Your task to perform on an android device: Open Google Chrome and click the shortcut for Amazon.com Image 0: 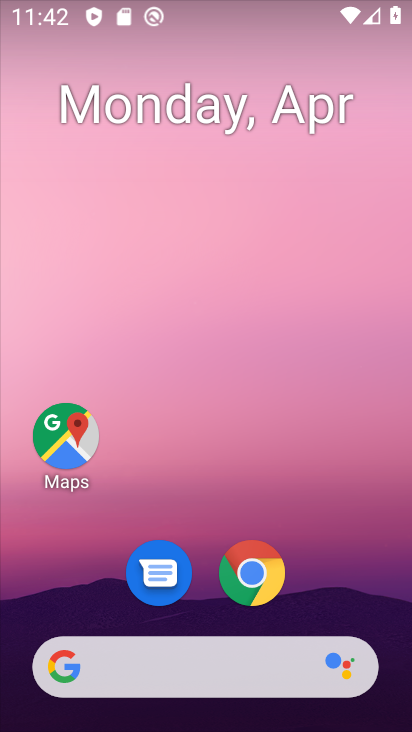
Step 0: click (234, 584)
Your task to perform on an android device: Open Google Chrome and click the shortcut for Amazon.com Image 1: 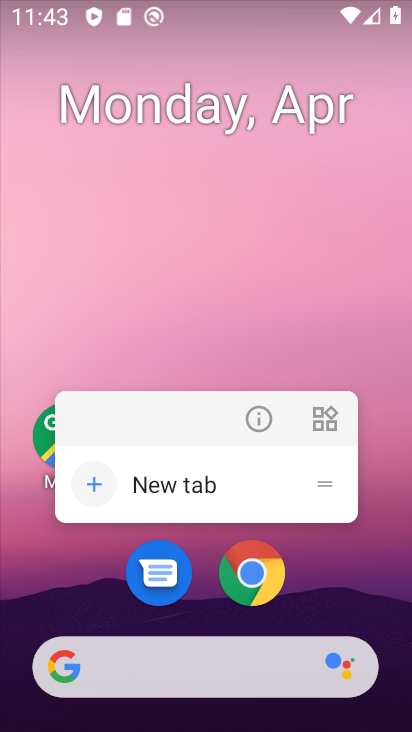
Step 1: click (252, 569)
Your task to perform on an android device: Open Google Chrome and click the shortcut for Amazon.com Image 2: 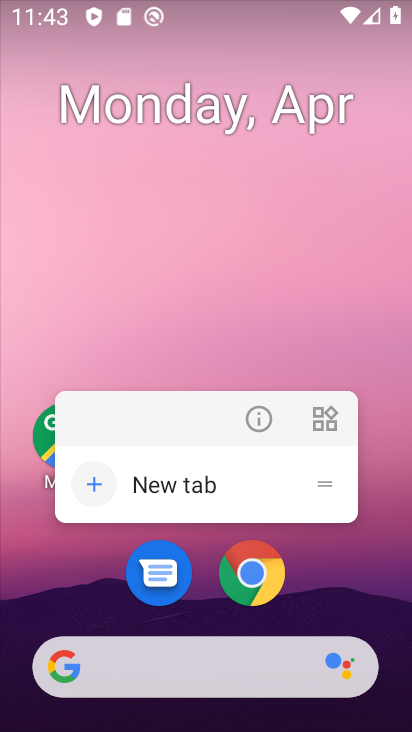
Step 2: click (252, 569)
Your task to perform on an android device: Open Google Chrome and click the shortcut for Amazon.com Image 3: 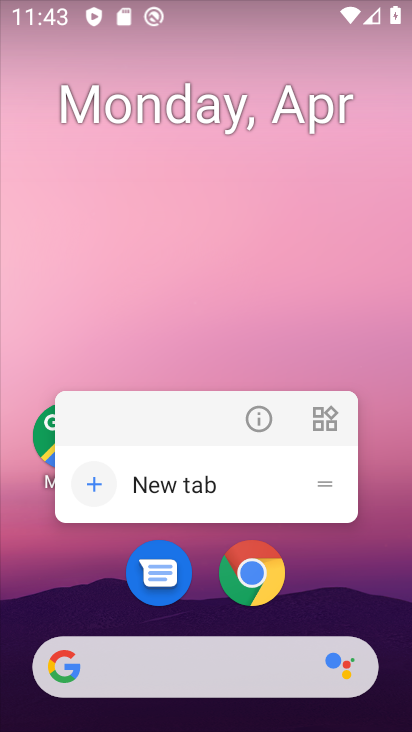
Step 3: click (252, 569)
Your task to perform on an android device: Open Google Chrome and click the shortcut for Amazon.com Image 4: 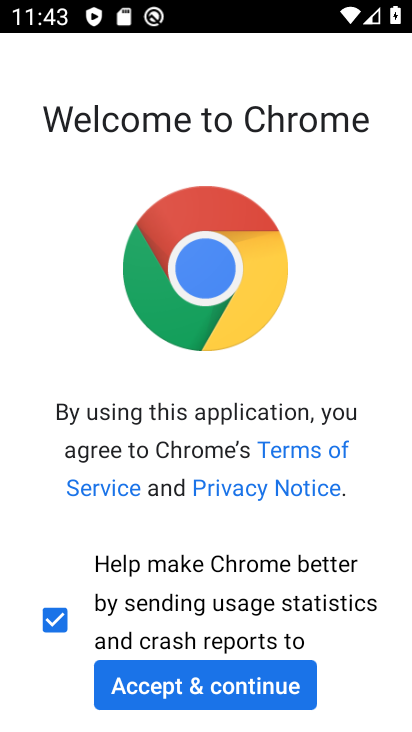
Step 4: click (165, 686)
Your task to perform on an android device: Open Google Chrome and click the shortcut for Amazon.com Image 5: 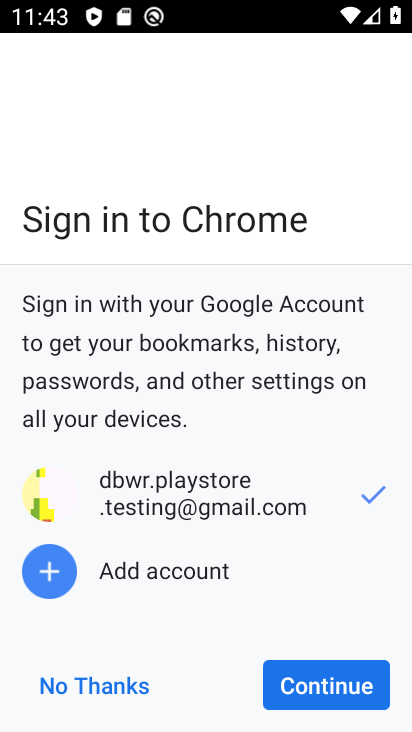
Step 5: click (319, 669)
Your task to perform on an android device: Open Google Chrome and click the shortcut for Amazon.com Image 6: 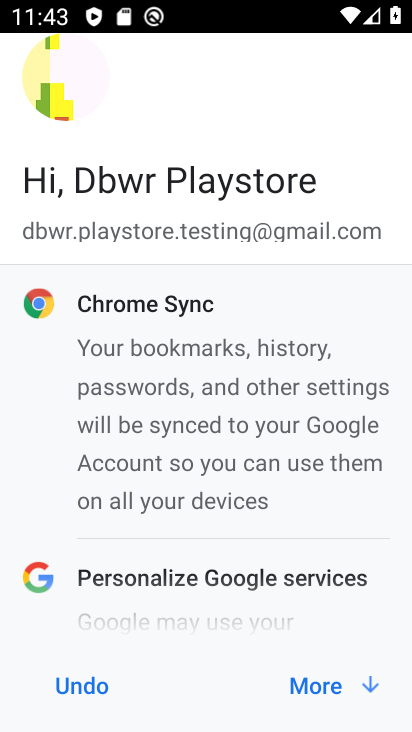
Step 6: click (344, 685)
Your task to perform on an android device: Open Google Chrome and click the shortcut for Amazon.com Image 7: 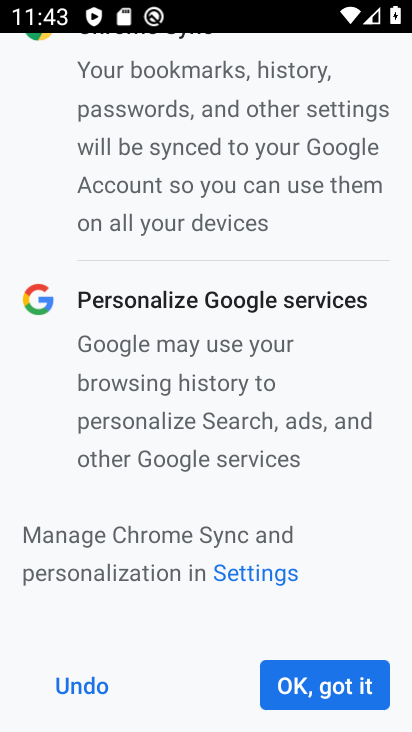
Step 7: click (344, 685)
Your task to perform on an android device: Open Google Chrome and click the shortcut for Amazon.com Image 8: 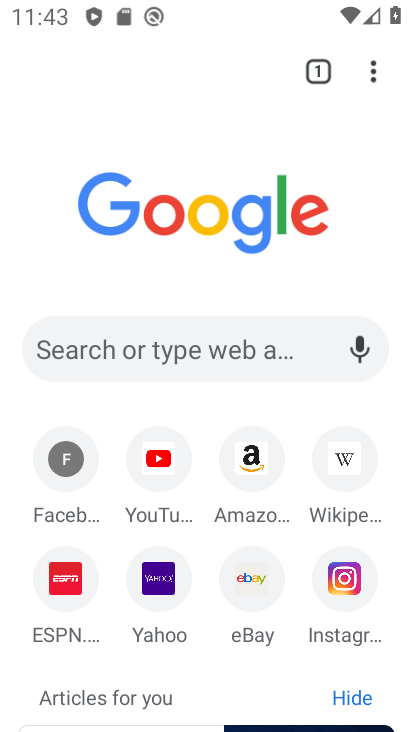
Step 8: click (257, 464)
Your task to perform on an android device: Open Google Chrome and click the shortcut for Amazon.com Image 9: 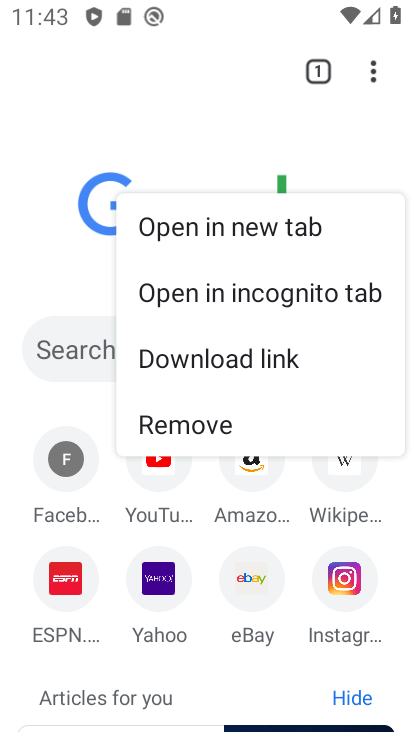
Step 9: click (251, 488)
Your task to perform on an android device: Open Google Chrome and click the shortcut for Amazon.com Image 10: 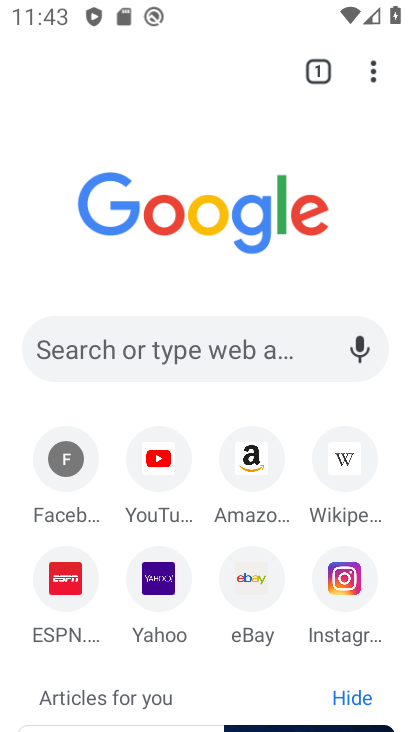
Step 10: click (251, 483)
Your task to perform on an android device: Open Google Chrome and click the shortcut for Amazon.com Image 11: 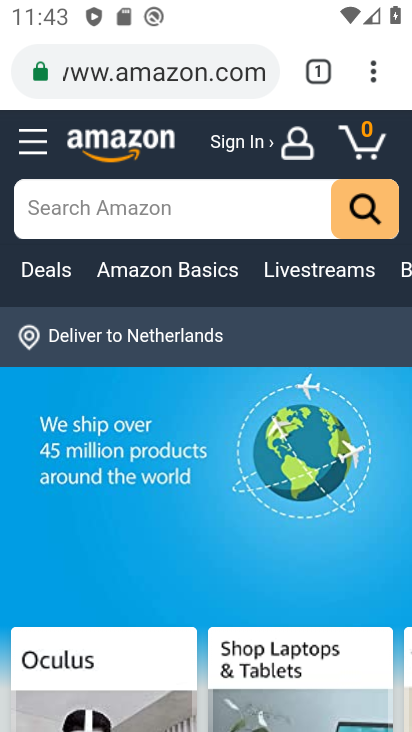
Step 11: task complete